Your task to perform on an android device: set the stopwatch Image 0: 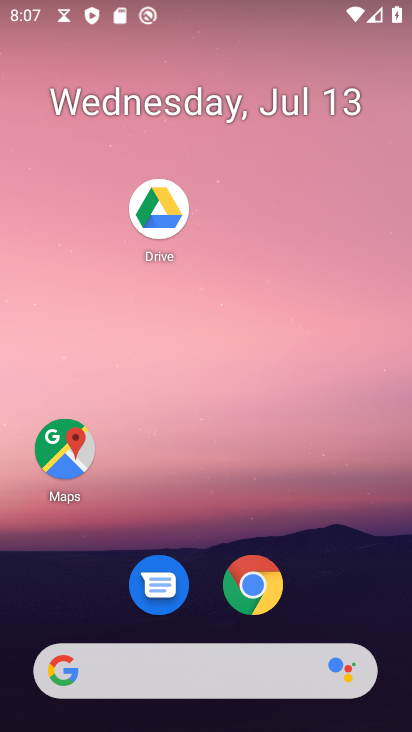
Step 0: drag from (181, 672) to (325, 33)
Your task to perform on an android device: set the stopwatch Image 1: 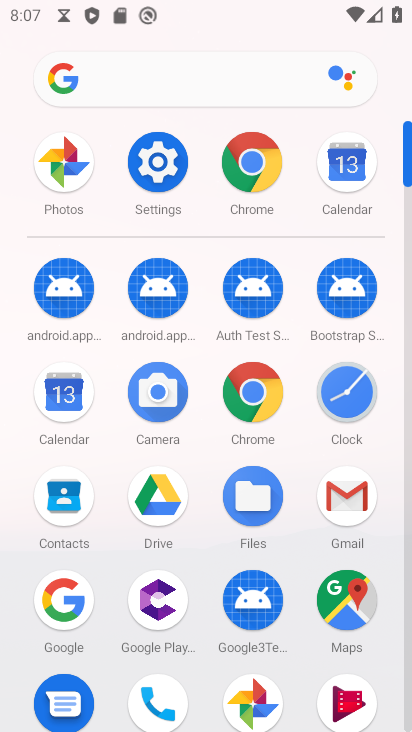
Step 1: click (366, 394)
Your task to perform on an android device: set the stopwatch Image 2: 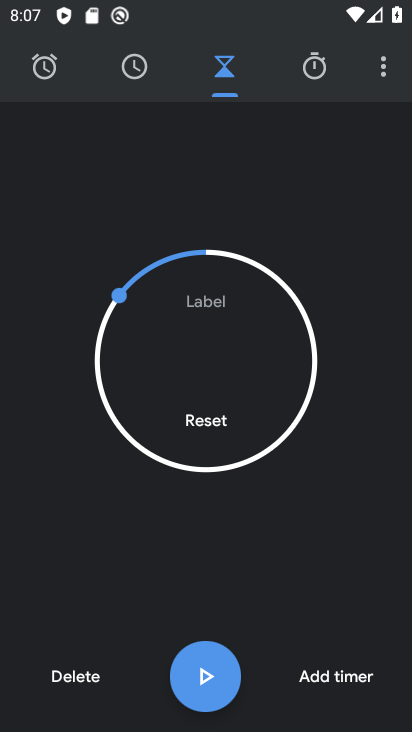
Step 2: click (315, 67)
Your task to perform on an android device: set the stopwatch Image 3: 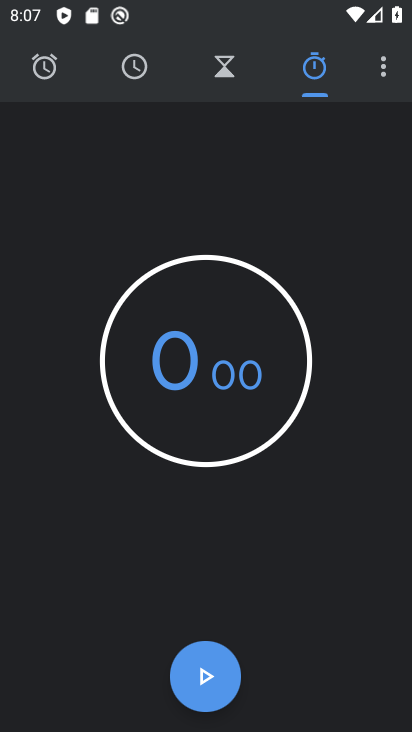
Step 3: click (221, 371)
Your task to perform on an android device: set the stopwatch Image 4: 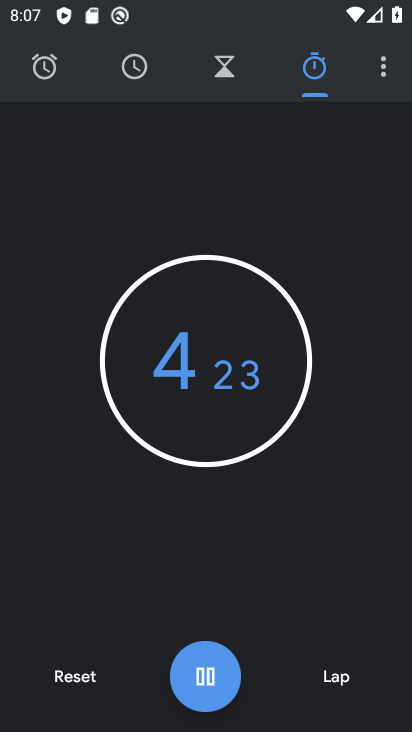
Step 4: click (221, 372)
Your task to perform on an android device: set the stopwatch Image 5: 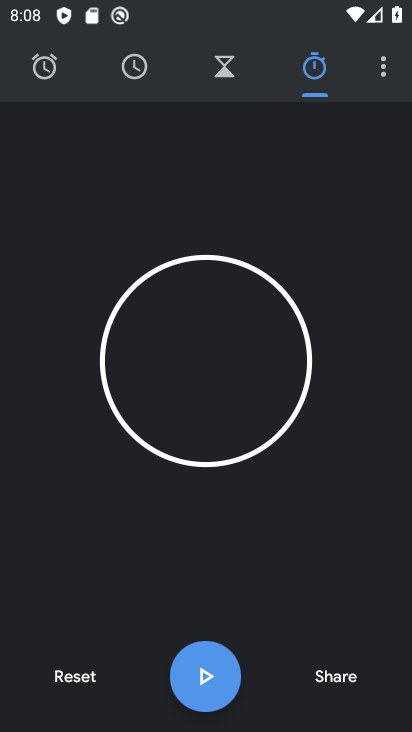
Step 5: task complete